Your task to perform on an android device: Open ESPN.com Image 0: 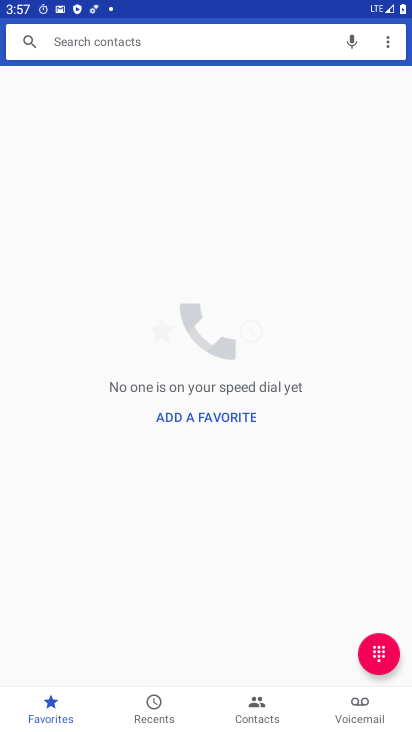
Step 0: press home button
Your task to perform on an android device: Open ESPN.com Image 1: 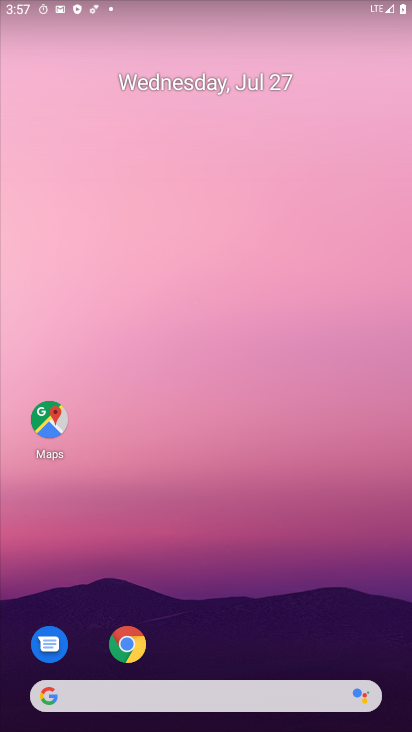
Step 1: click (129, 640)
Your task to perform on an android device: Open ESPN.com Image 2: 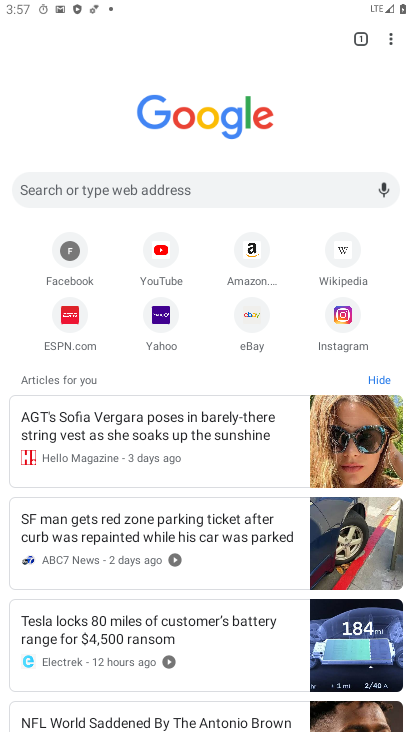
Step 2: click (67, 319)
Your task to perform on an android device: Open ESPN.com Image 3: 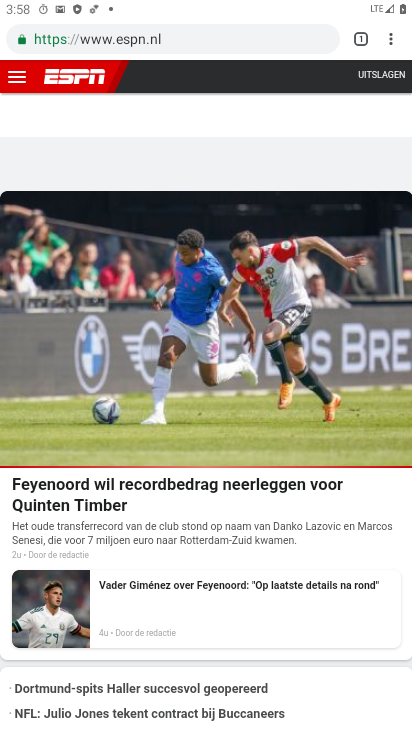
Step 3: task complete